Your task to perform on an android device: What's on my calendar today? Image 0: 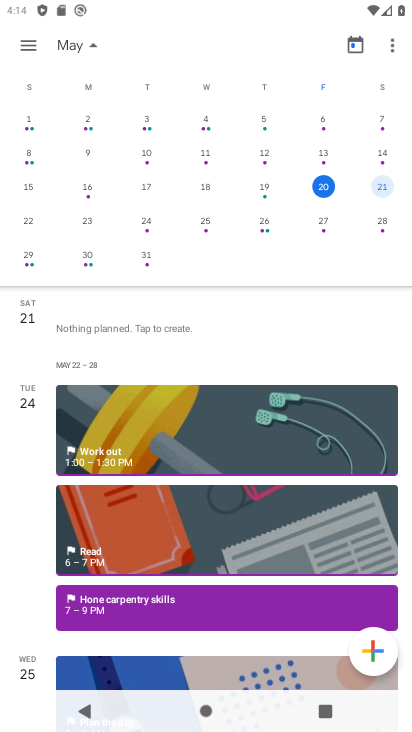
Step 0: click (324, 185)
Your task to perform on an android device: What's on my calendar today? Image 1: 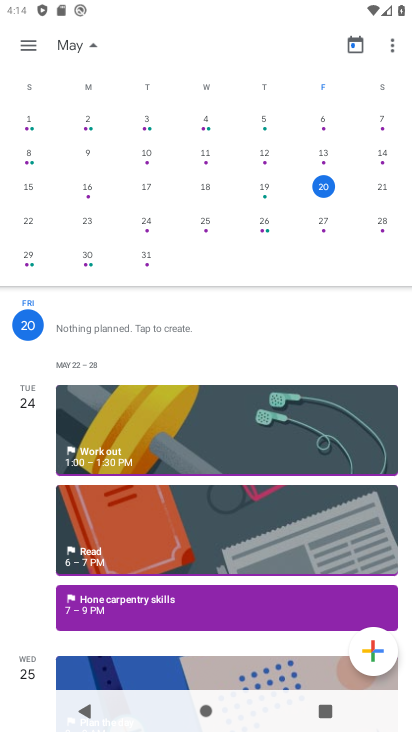
Step 1: task complete